Your task to perform on an android device: Search for sushi restaurants on Maps Image 0: 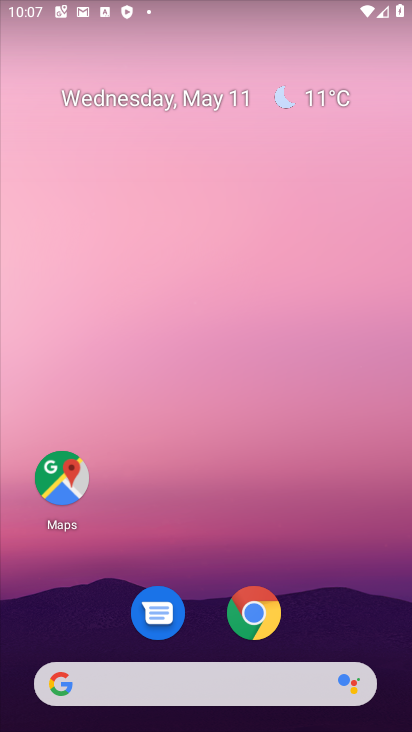
Step 0: drag from (233, 539) to (262, 180)
Your task to perform on an android device: Search for sushi restaurants on Maps Image 1: 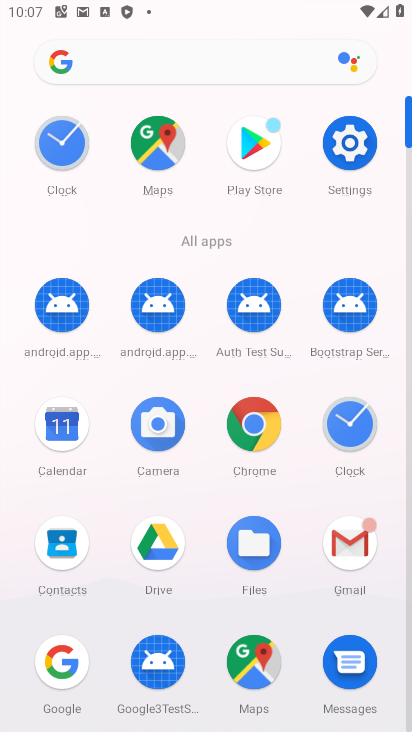
Step 1: click (256, 687)
Your task to perform on an android device: Search for sushi restaurants on Maps Image 2: 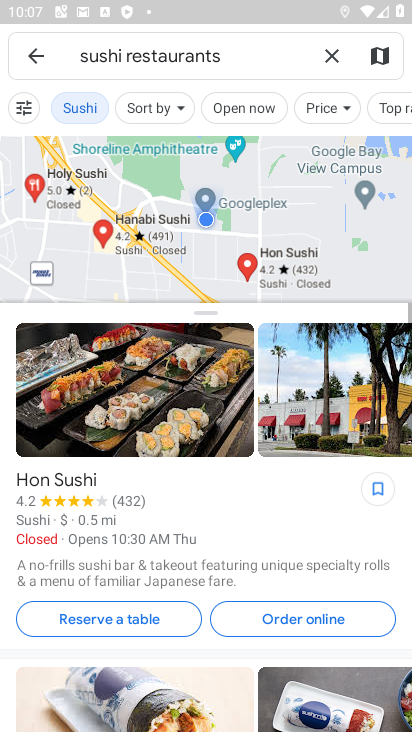
Step 2: task complete